Your task to perform on an android device: Check the weather Image 0: 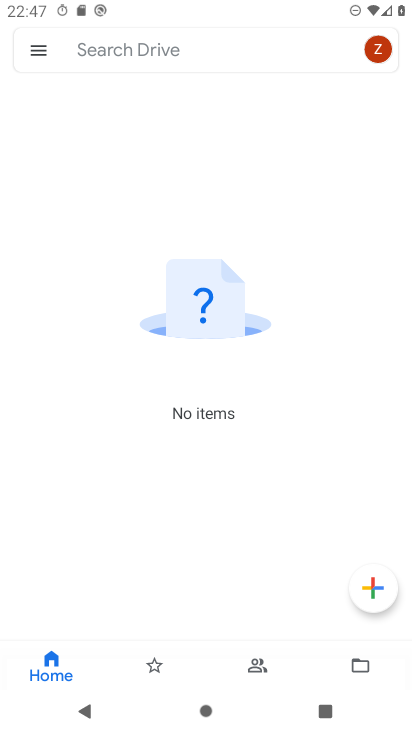
Step 0: press home button
Your task to perform on an android device: Check the weather Image 1: 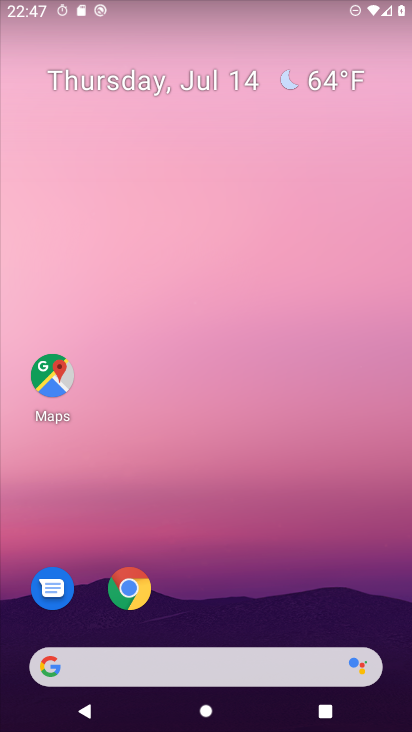
Step 1: click (266, 658)
Your task to perform on an android device: Check the weather Image 2: 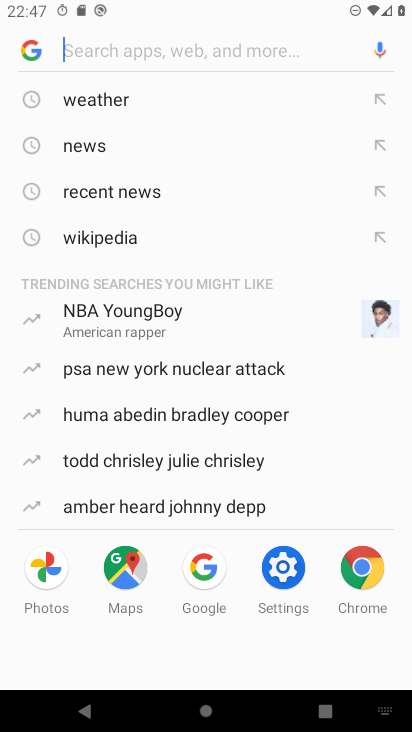
Step 2: click (133, 102)
Your task to perform on an android device: Check the weather Image 3: 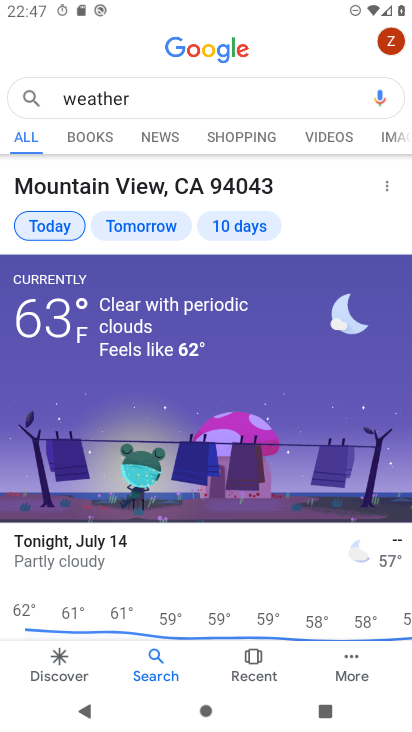
Step 3: task complete